Your task to perform on an android device: all mails in gmail Image 0: 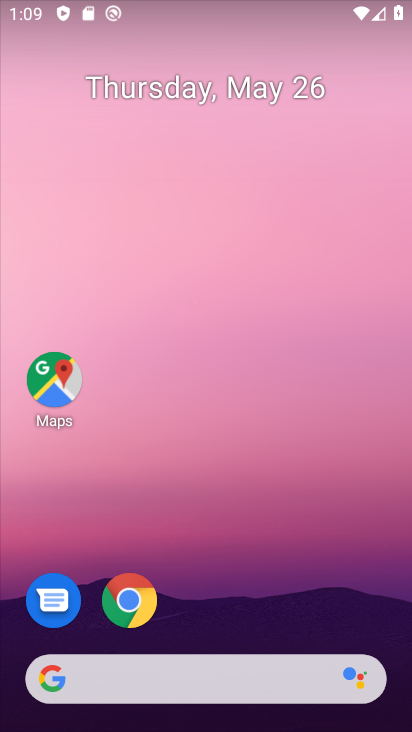
Step 0: drag from (204, 472) to (180, 61)
Your task to perform on an android device: all mails in gmail Image 1: 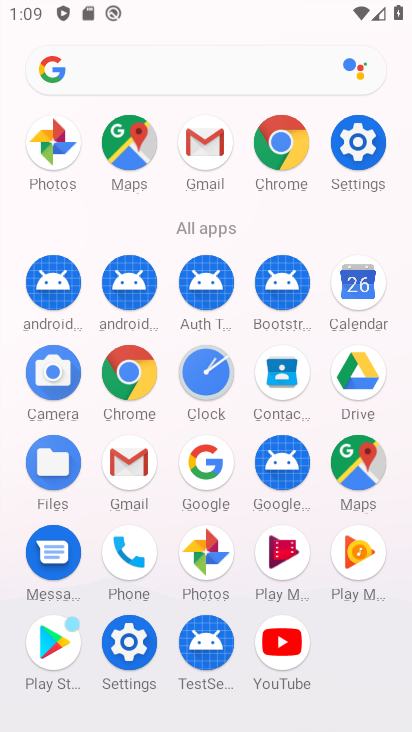
Step 1: click (201, 180)
Your task to perform on an android device: all mails in gmail Image 2: 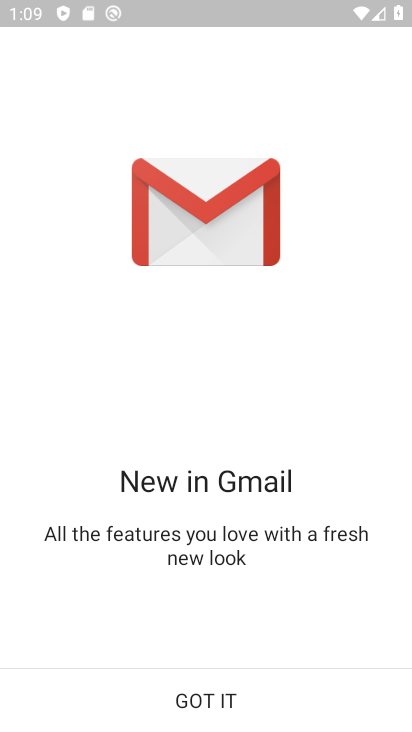
Step 2: click (211, 680)
Your task to perform on an android device: all mails in gmail Image 3: 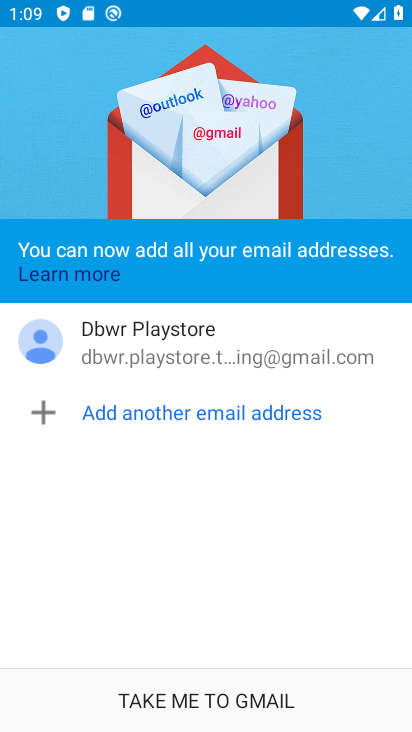
Step 3: click (103, 334)
Your task to perform on an android device: all mails in gmail Image 4: 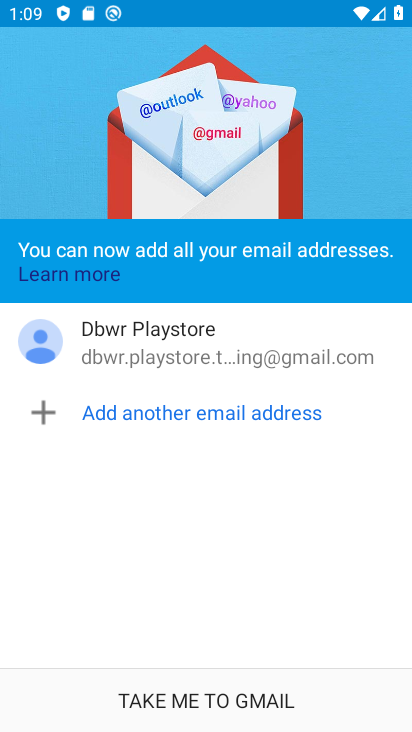
Step 4: click (182, 680)
Your task to perform on an android device: all mails in gmail Image 5: 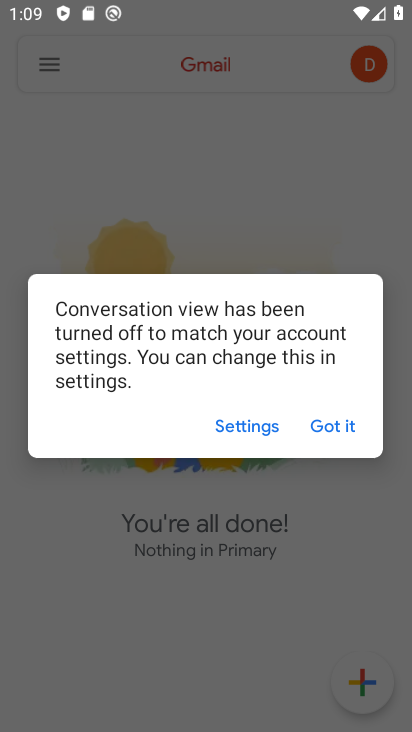
Step 5: click (338, 439)
Your task to perform on an android device: all mails in gmail Image 6: 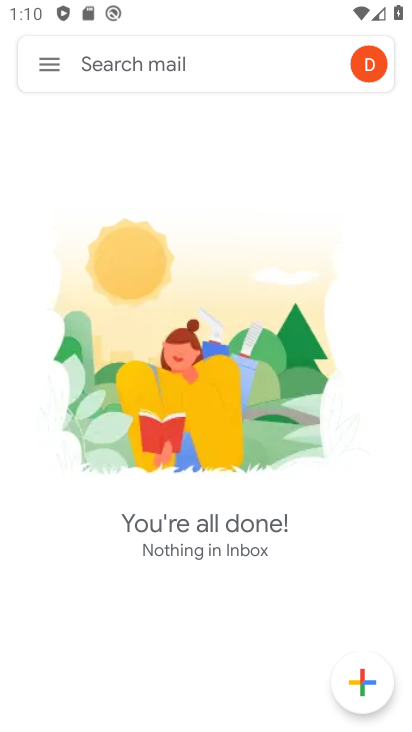
Step 6: click (59, 73)
Your task to perform on an android device: all mails in gmail Image 7: 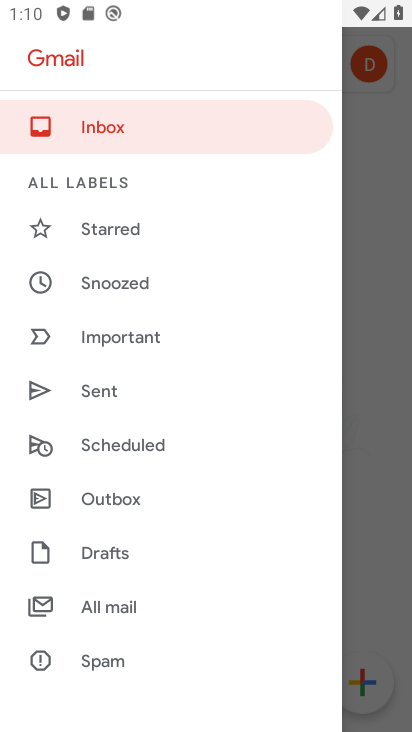
Step 7: click (185, 603)
Your task to perform on an android device: all mails in gmail Image 8: 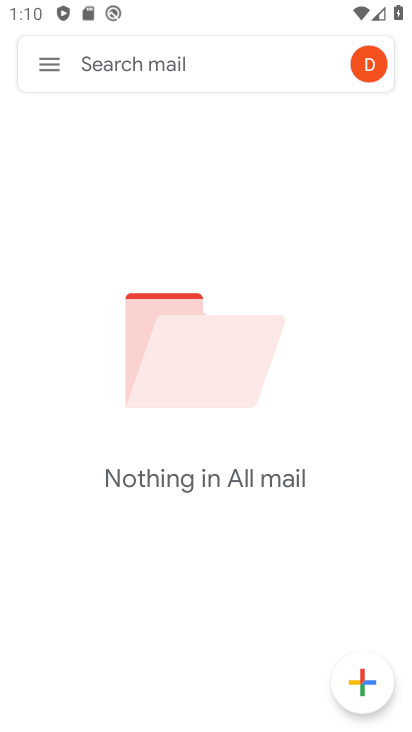
Step 8: task complete